Your task to perform on an android device: Open Google Maps and go to "Timeline" Image 0: 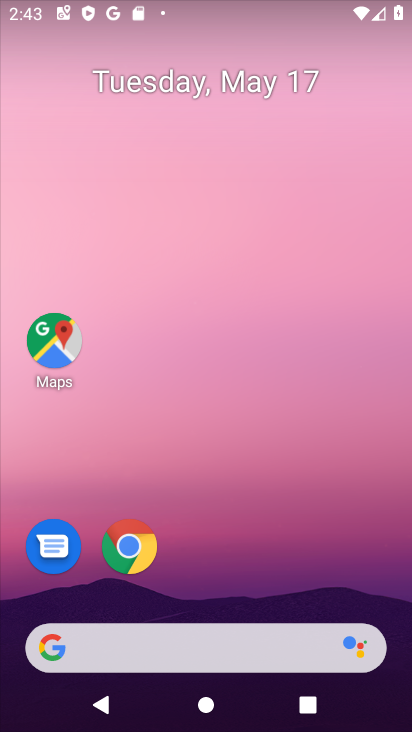
Step 0: click (59, 346)
Your task to perform on an android device: Open Google Maps and go to "Timeline" Image 1: 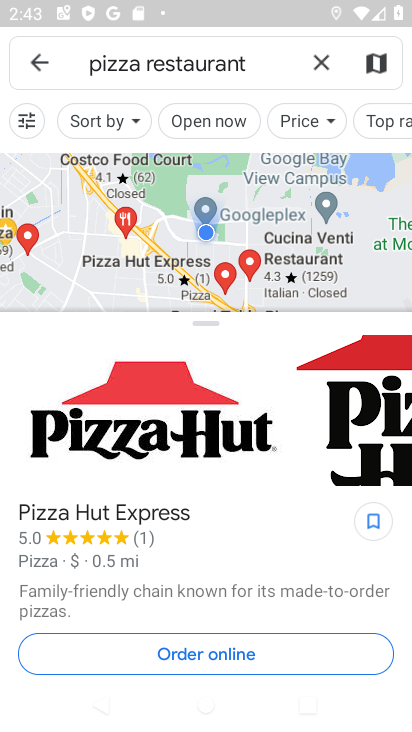
Step 1: click (36, 58)
Your task to perform on an android device: Open Google Maps and go to "Timeline" Image 2: 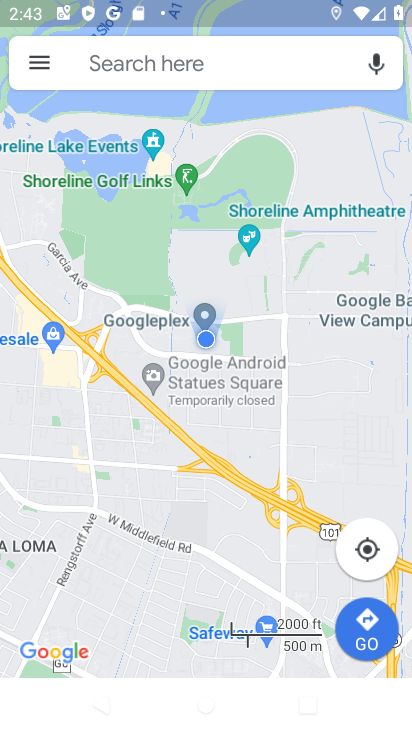
Step 2: click (38, 52)
Your task to perform on an android device: Open Google Maps and go to "Timeline" Image 3: 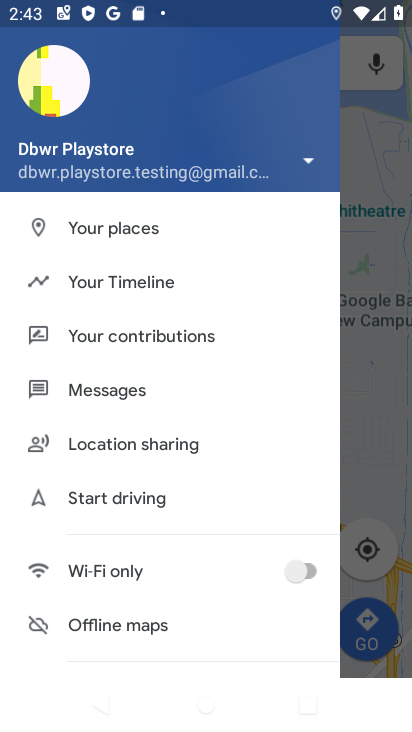
Step 3: click (121, 279)
Your task to perform on an android device: Open Google Maps and go to "Timeline" Image 4: 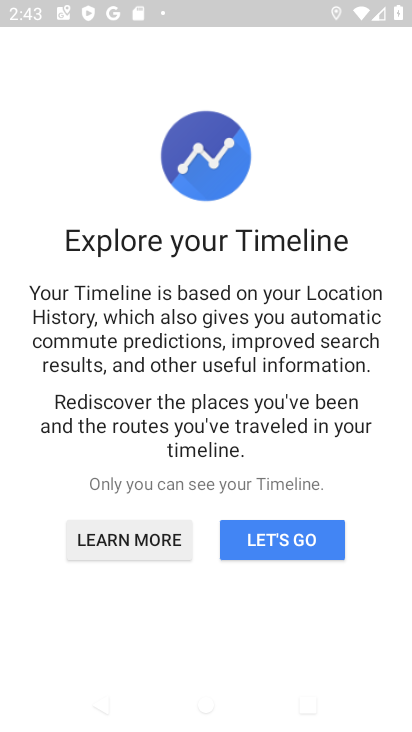
Step 4: click (276, 549)
Your task to perform on an android device: Open Google Maps and go to "Timeline" Image 5: 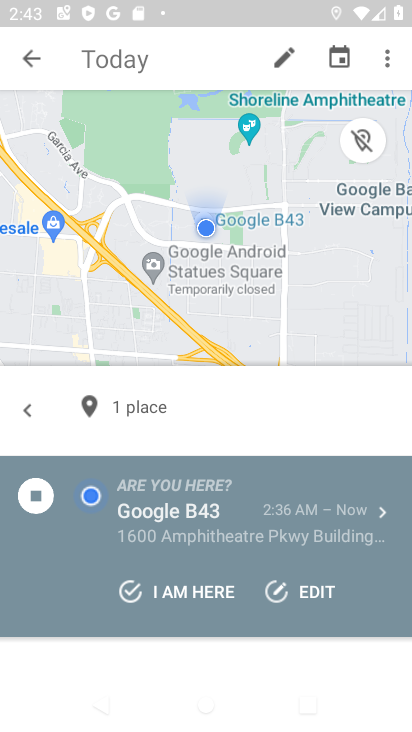
Step 5: task complete